Your task to perform on an android device: clear history in the chrome app Image 0: 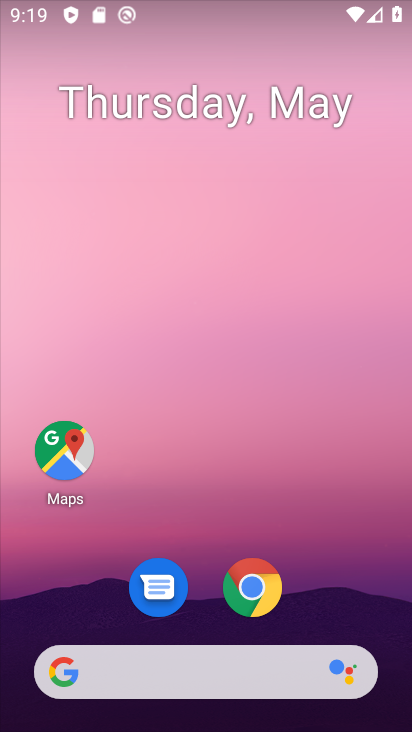
Step 0: click (267, 588)
Your task to perform on an android device: clear history in the chrome app Image 1: 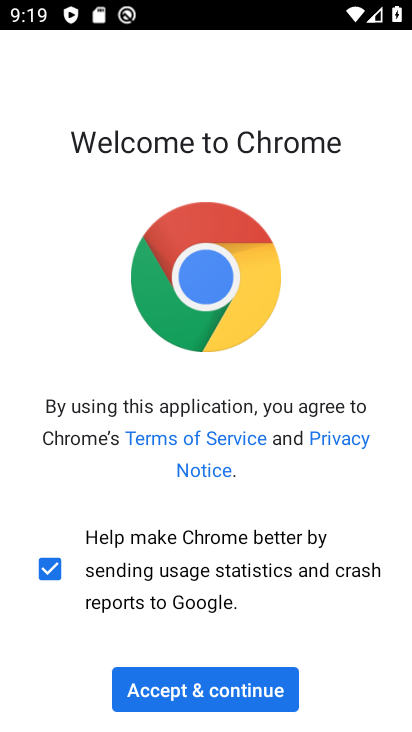
Step 1: click (170, 688)
Your task to perform on an android device: clear history in the chrome app Image 2: 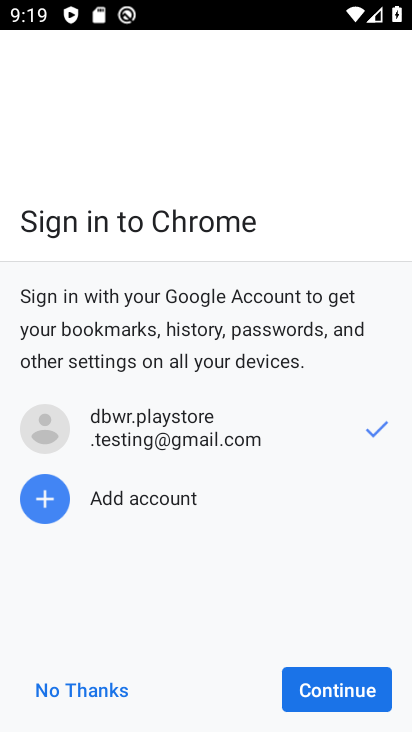
Step 2: click (85, 697)
Your task to perform on an android device: clear history in the chrome app Image 3: 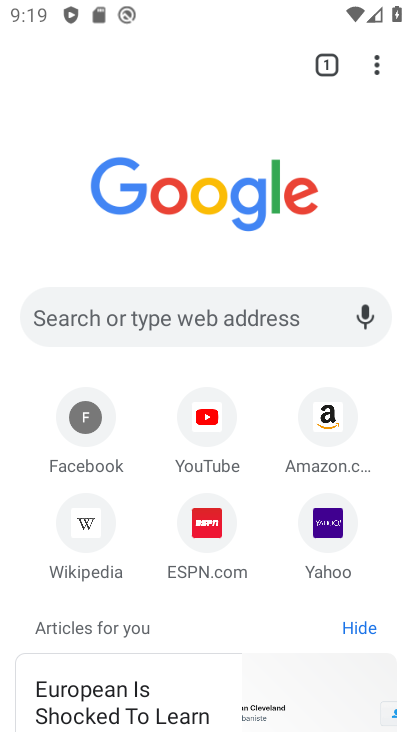
Step 3: click (380, 67)
Your task to perform on an android device: clear history in the chrome app Image 4: 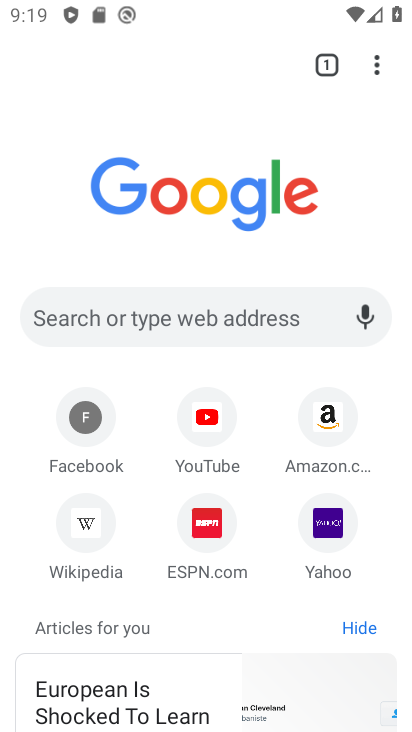
Step 4: click (378, 66)
Your task to perform on an android device: clear history in the chrome app Image 5: 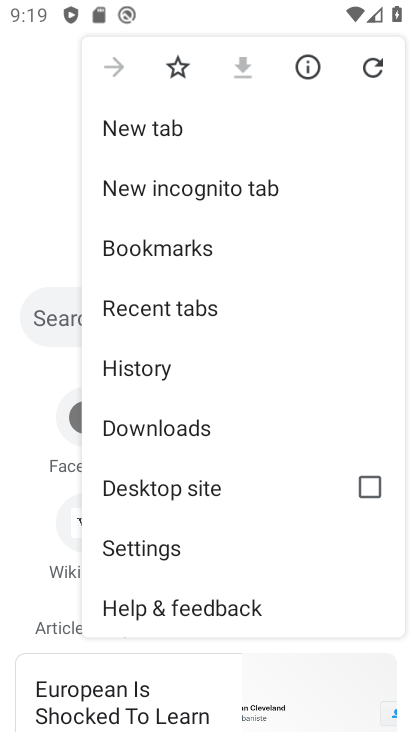
Step 5: click (155, 373)
Your task to perform on an android device: clear history in the chrome app Image 6: 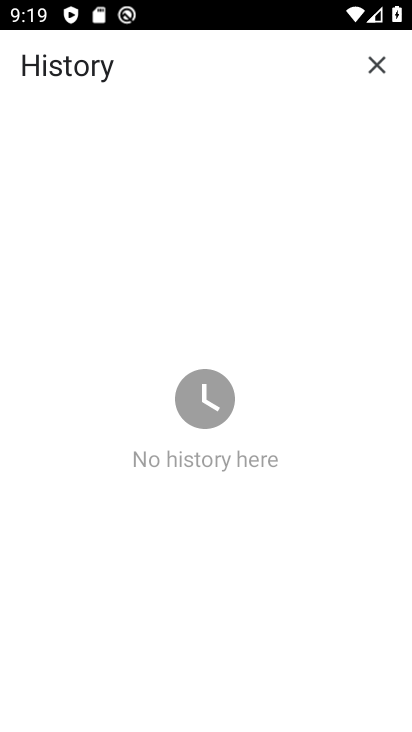
Step 6: task complete